Your task to perform on an android device: Open Chrome and go to settings Image 0: 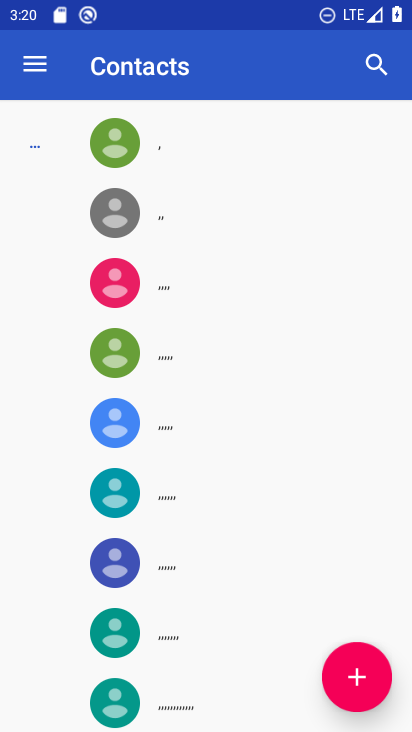
Step 0: drag from (207, 656) to (187, 103)
Your task to perform on an android device: Open Chrome and go to settings Image 1: 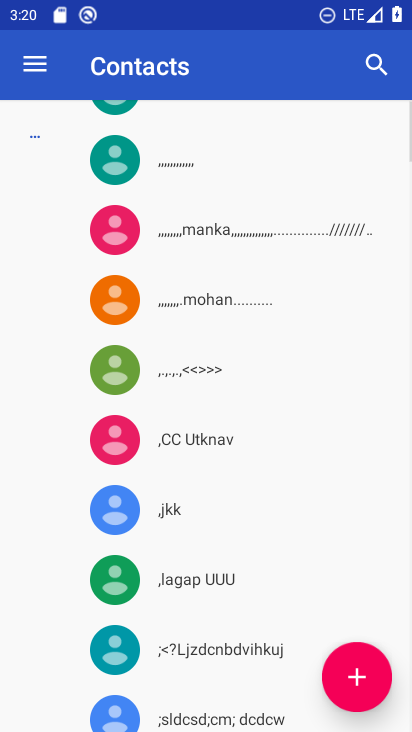
Step 1: press home button
Your task to perform on an android device: Open Chrome and go to settings Image 2: 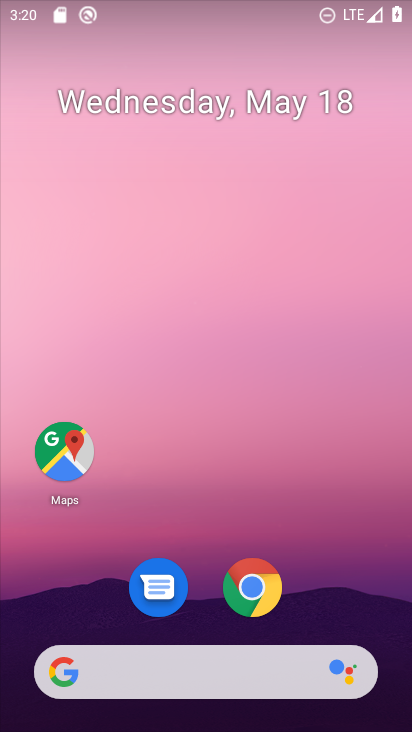
Step 2: click (263, 593)
Your task to perform on an android device: Open Chrome and go to settings Image 3: 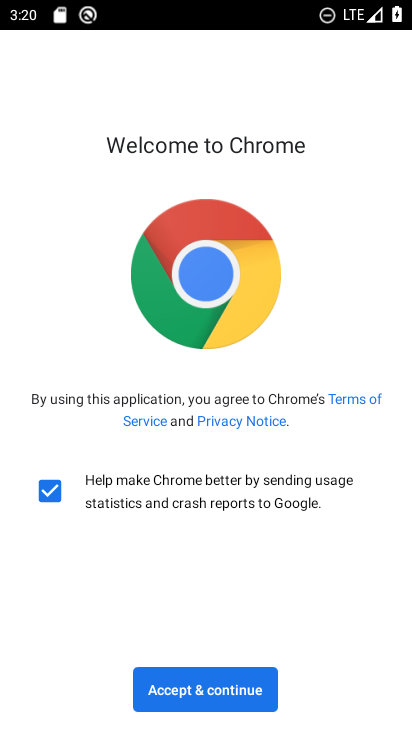
Step 3: click (214, 702)
Your task to perform on an android device: Open Chrome and go to settings Image 4: 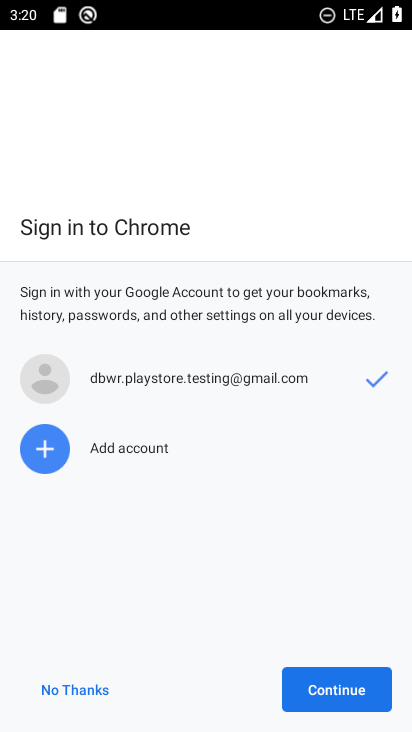
Step 4: click (350, 690)
Your task to perform on an android device: Open Chrome and go to settings Image 5: 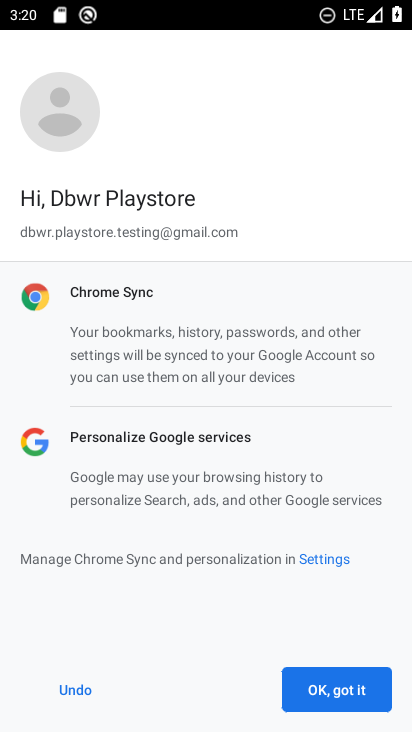
Step 5: click (350, 690)
Your task to perform on an android device: Open Chrome and go to settings Image 6: 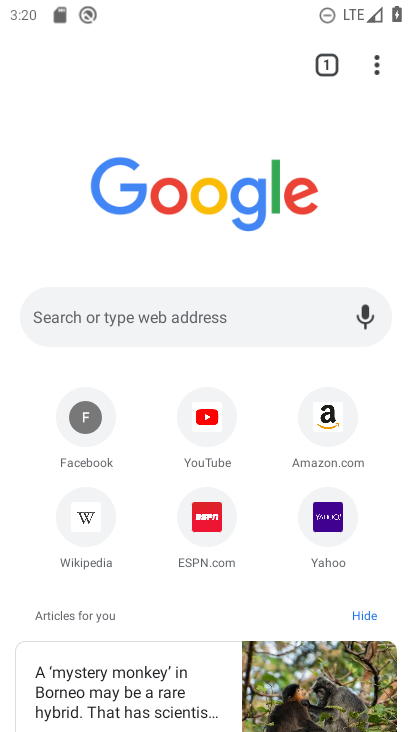
Step 6: task complete